Your task to perform on an android device: Search for Italian restaurants on Maps Image 0: 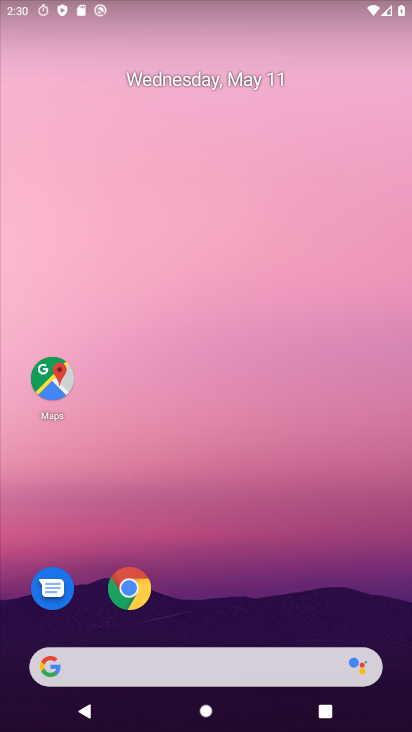
Step 0: drag from (255, 592) to (270, 157)
Your task to perform on an android device: Search for Italian restaurants on Maps Image 1: 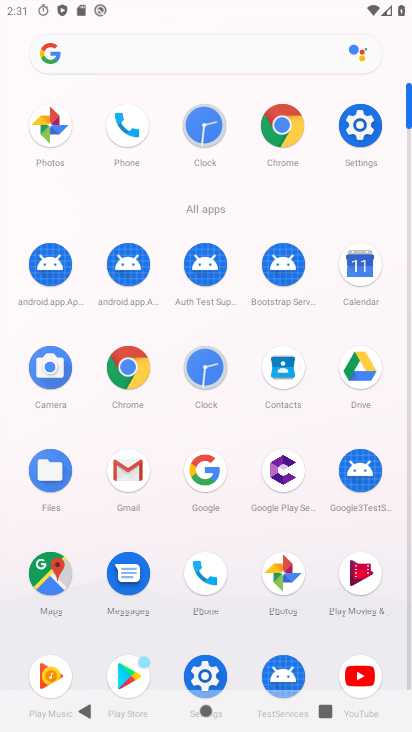
Step 1: click (34, 576)
Your task to perform on an android device: Search for Italian restaurants on Maps Image 2: 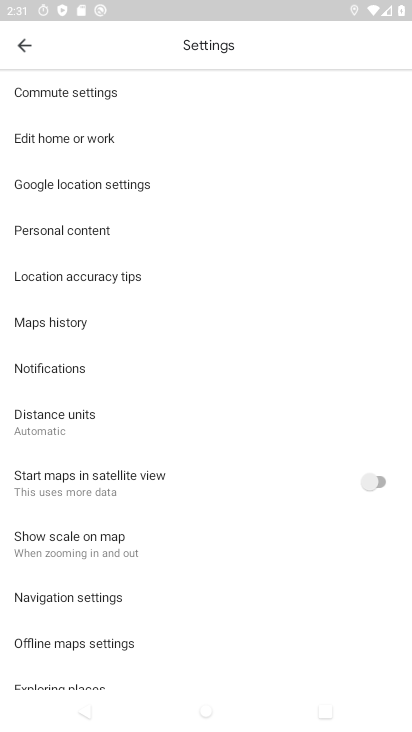
Step 2: click (22, 38)
Your task to perform on an android device: Search for Italian restaurants on Maps Image 3: 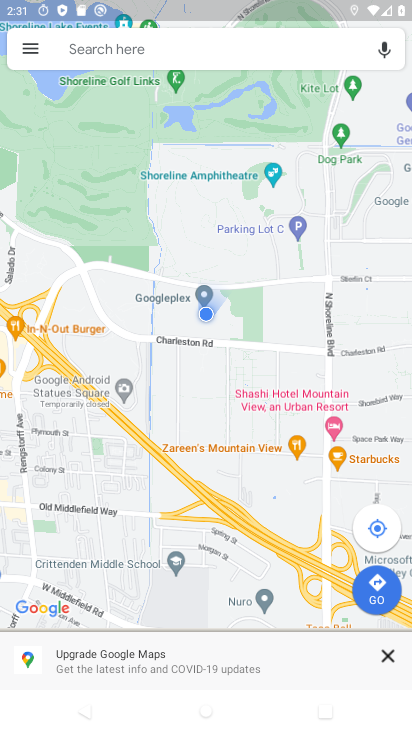
Step 3: click (201, 49)
Your task to perform on an android device: Search for Italian restaurants on Maps Image 4: 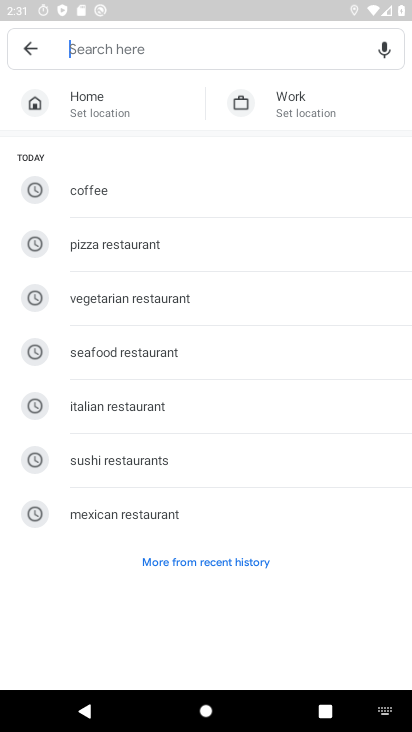
Step 4: type " Italian restaurants "
Your task to perform on an android device: Search for Italian restaurants on Maps Image 5: 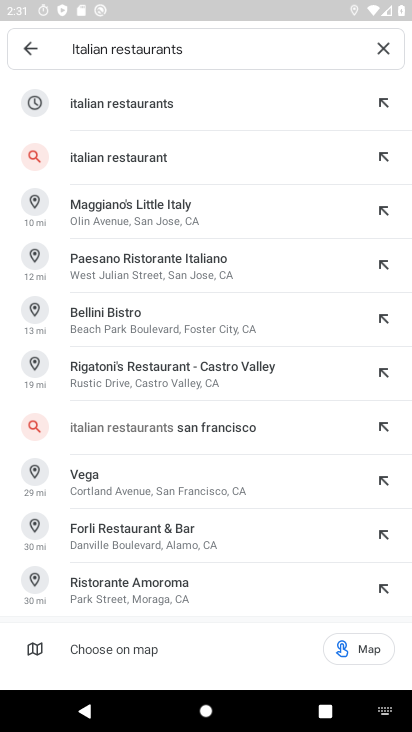
Step 5: click (76, 95)
Your task to perform on an android device: Search for Italian restaurants on Maps Image 6: 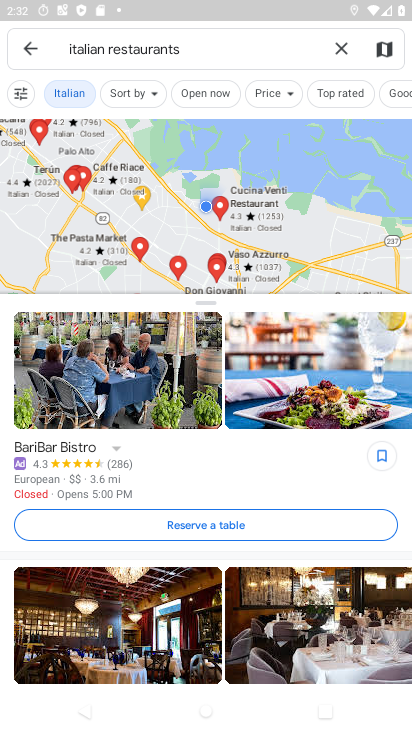
Step 6: task complete